Your task to perform on an android device: Turn off the flashlight Image 0: 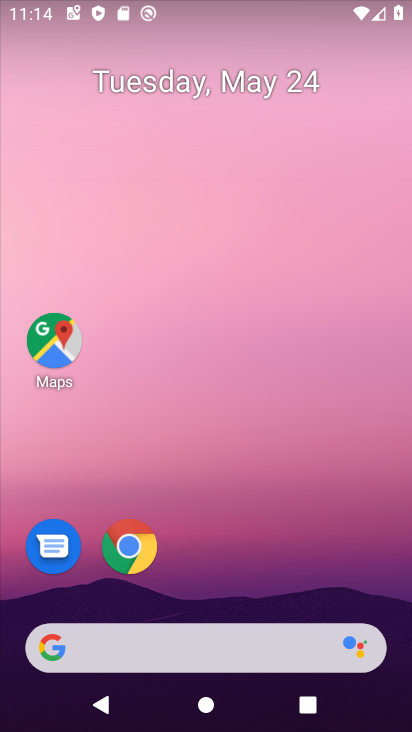
Step 0: drag from (251, 11) to (265, 334)
Your task to perform on an android device: Turn off the flashlight Image 1: 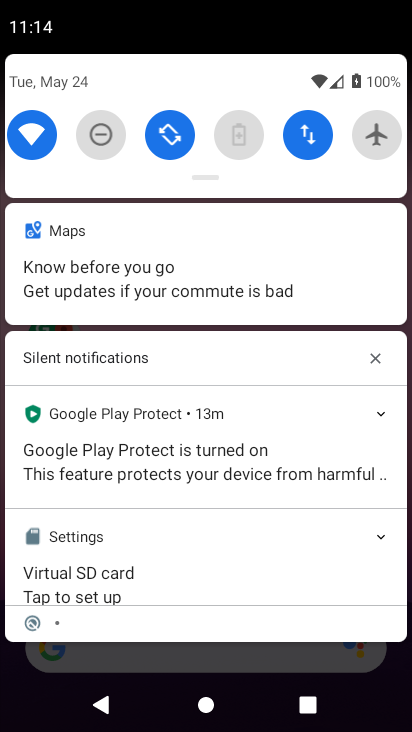
Step 1: drag from (203, 150) to (239, 418)
Your task to perform on an android device: Turn off the flashlight Image 2: 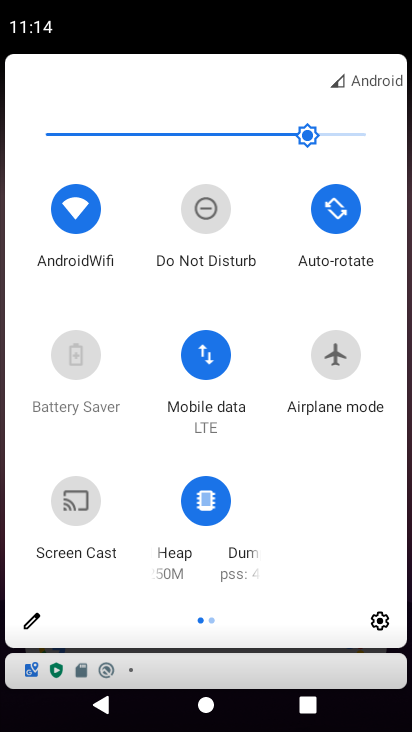
Step 2: click (35, 627)
Your task to perform on an android device: Turn off the flashlight Image 3: 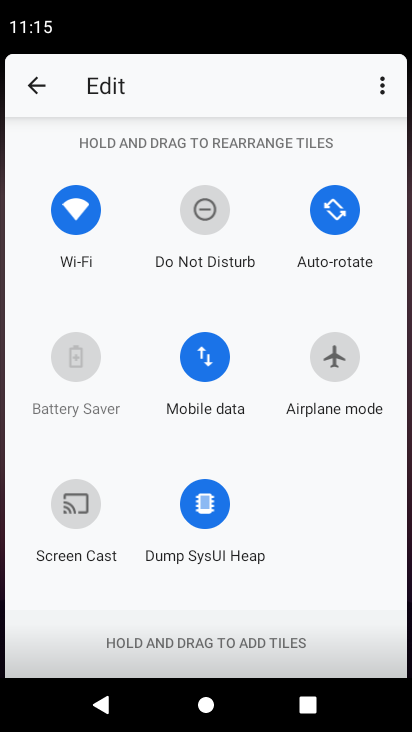
Step 3: task complete